Your task to perform on an android device: empty trash in the gmail app Image 0: 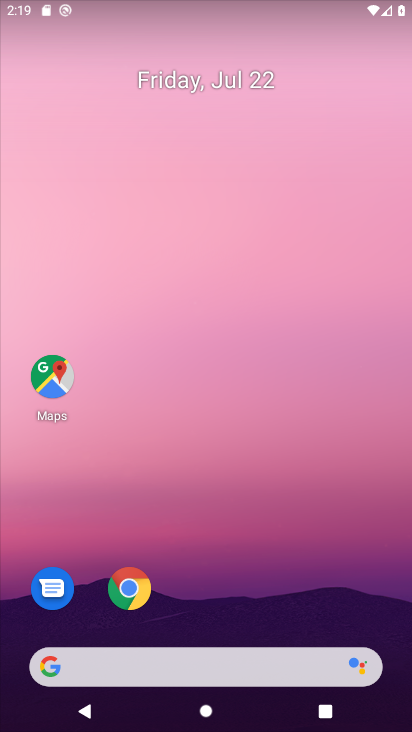
Step 0: drag from (175, 467) to (172, 388)
Your task to perform on an android device: empty trash in the gmail app Image 1: 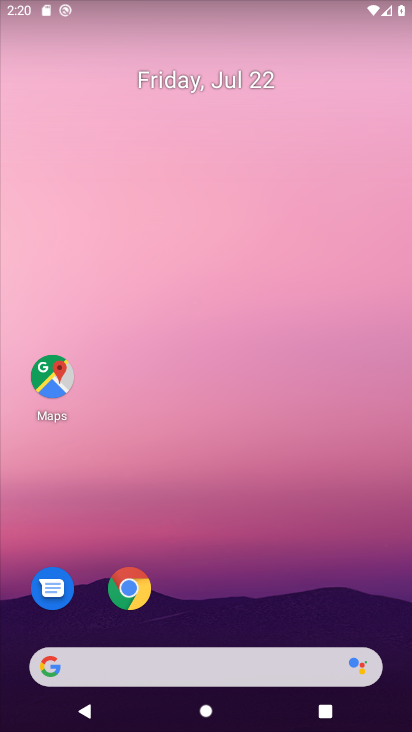
Step 1: drag from (295, 673) to (279, 211)
Your task to perform on an android device: empty trash in the gmail app Image 2: 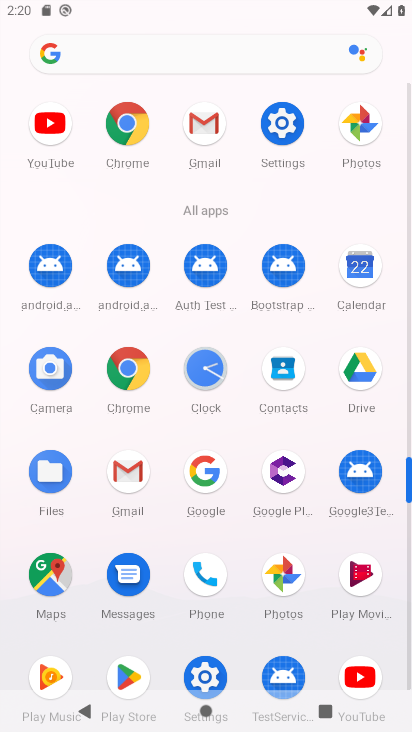
Step 2: click (135, 455)
Your task to perform on an android device: empty trash in the gmail app Image 3: 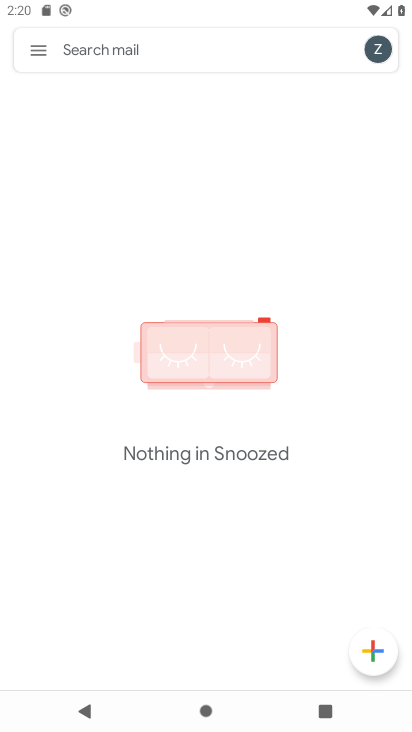
Step 3: click (49, 48)
Your task to perform on an android device: empty trash in the gmail app Image 4: 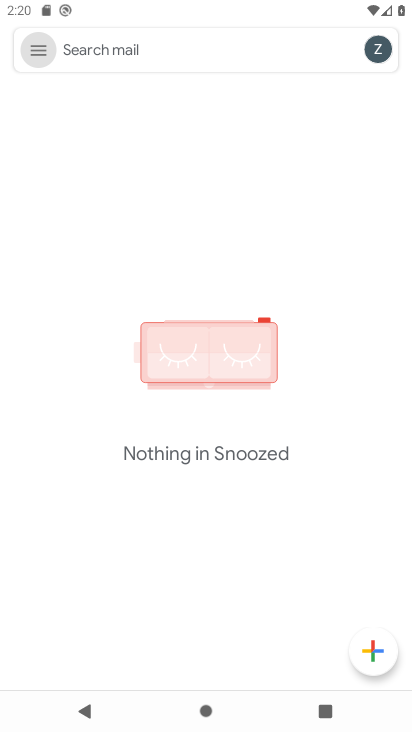
Step 4: click (49, 48)
Your task to perform on an android device: empty trash in the gmail app Image 5: 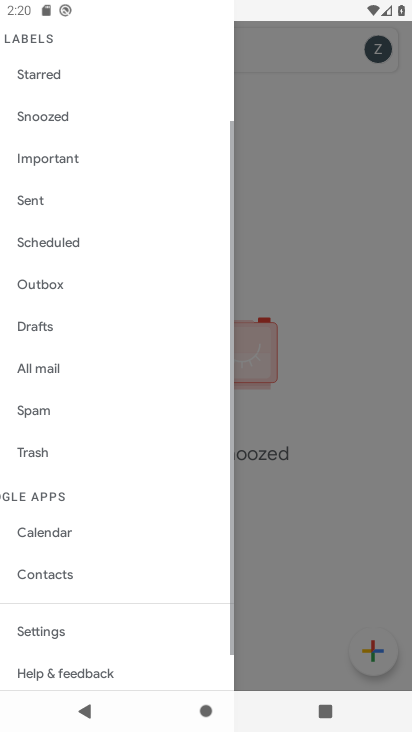
Step 5: click (47, 47)
Your task to perform on an android device: empty trash in the gmail app Image 6: 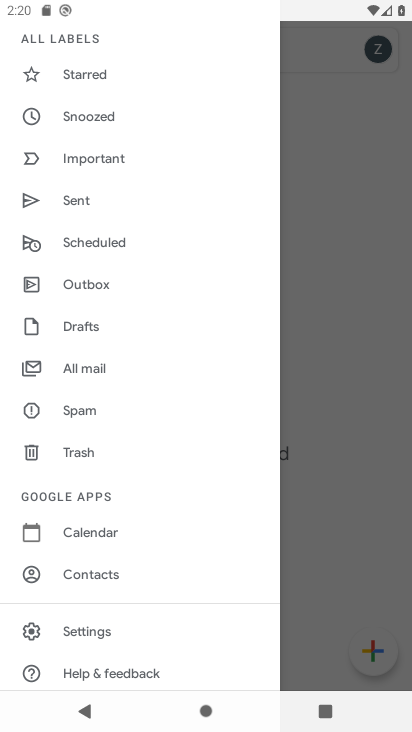
Step 6: click (69, 445)
Your task to perform on an android device: empty trash in the gmail app Image 7: 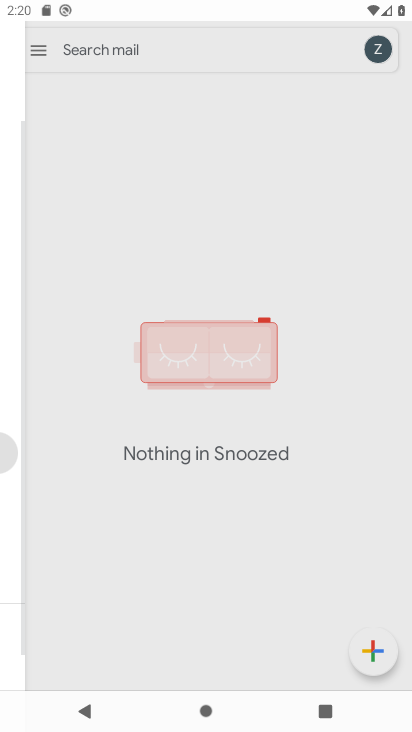
Step 7: click (71, 452)
Your task to perform on an android device: empty trash in the gmail app Image 8: 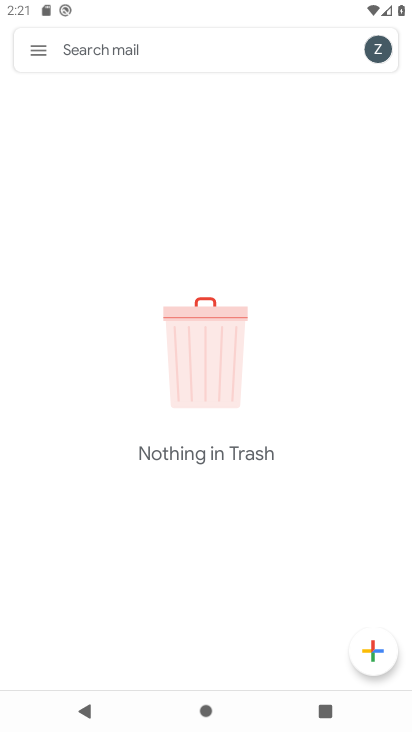
Step 8: task complete